Your task to perform on an android device: see sites visited before in the chrome app Image 0: 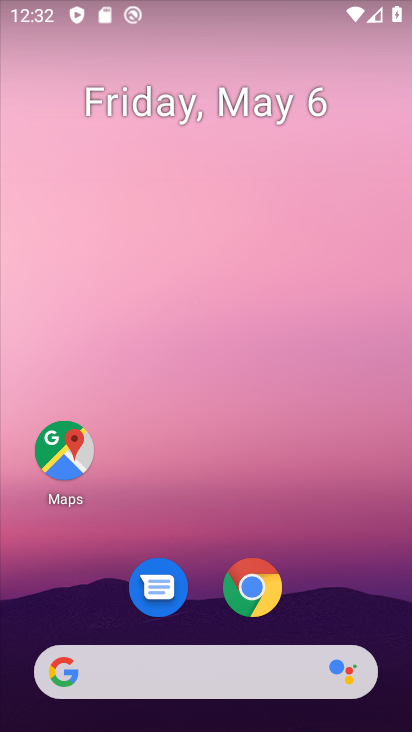
Step 0: click (254, 581)
Your task to perform on an android device: see sites visited before in the chrome app Image 1: 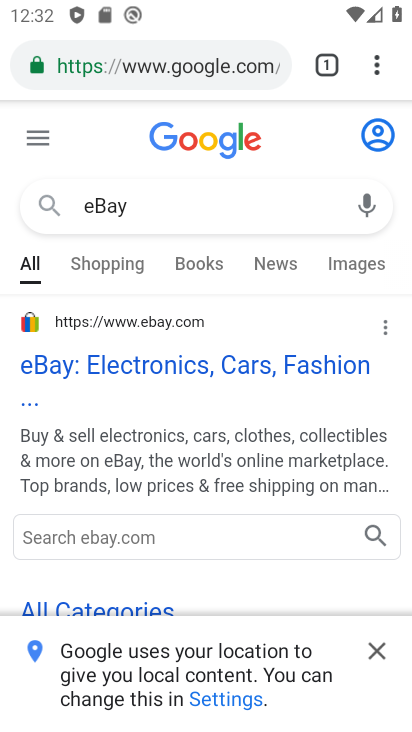
Step 1: click (333, 64)
Your task to perform on an android device: see sites visited before in the chrome app Image 2: 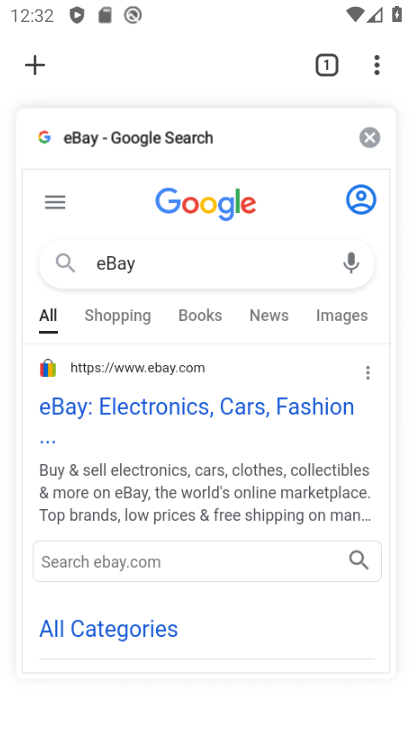
Step 2: click (25, 70)
Your task to perform on an android device: see sites visited before in the chrome app Image 3: 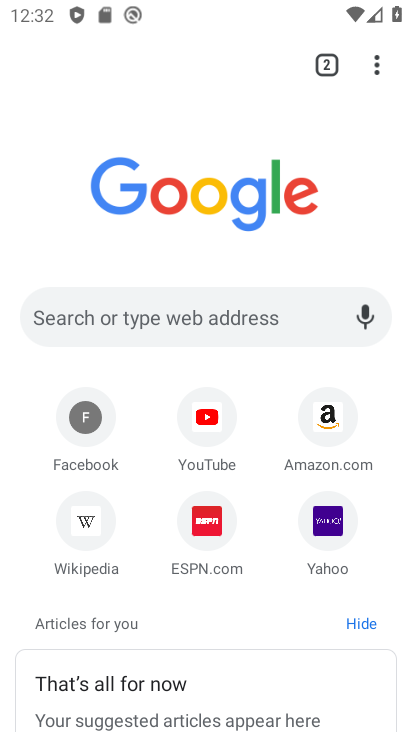
Step 3: task complete